Your task to perform on an android device: turn on notifications settings in the gmail app Image 0: 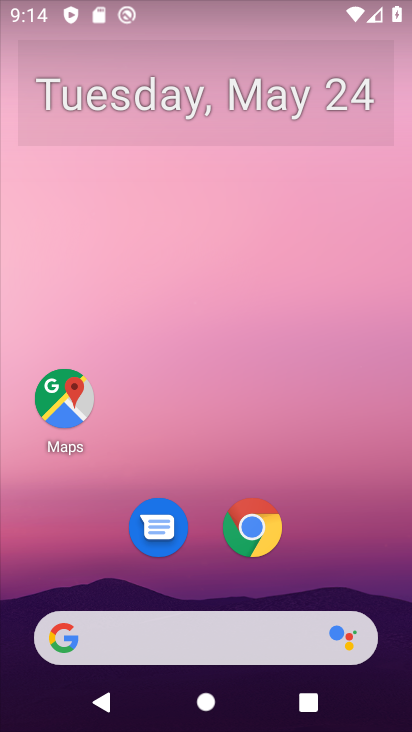
Step 0: drag from (386, 699) to (382, 202)
Your task to perform on an android device: turn on notifications settings in the gmail app Image 1: 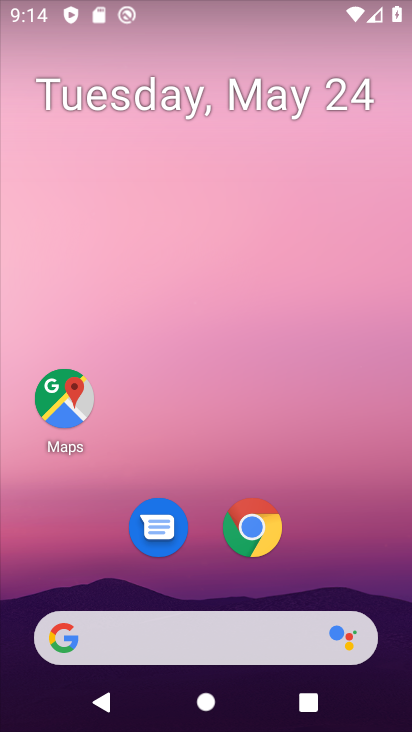
Step 1: drag from (402, 667) to (343, 184)
Your task to perform on an android device: turn on notifications settings in the gmail app Image 2: 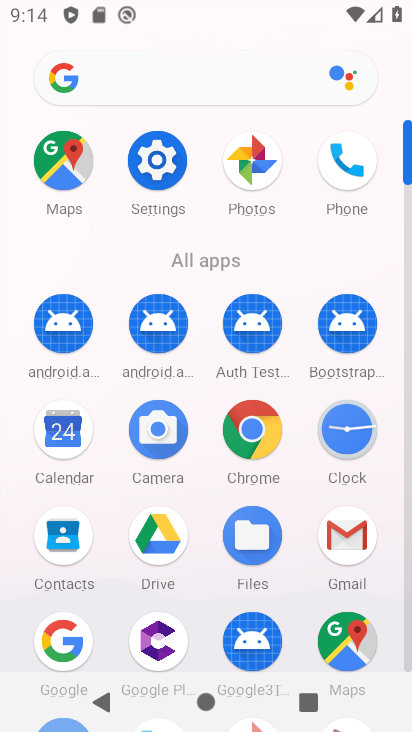
Step 2: click (341, 534)
Your task to perform on an android device: turn on notifications settings in the gmail app Image 3: 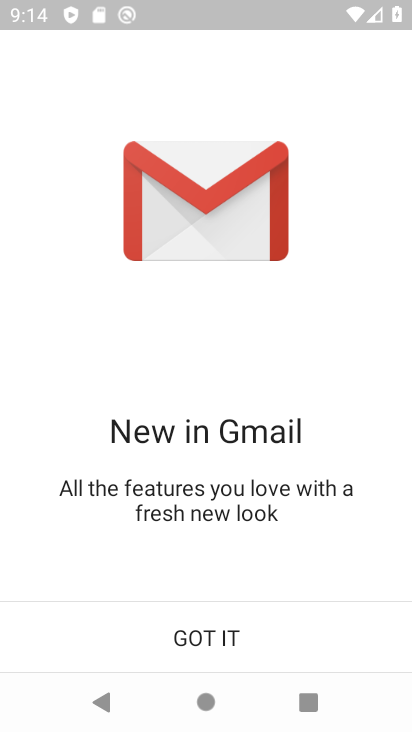
Step 3: click (224, 625)
Your task to perform on an android device: turn on notifications settings in the gmail app Image 4: 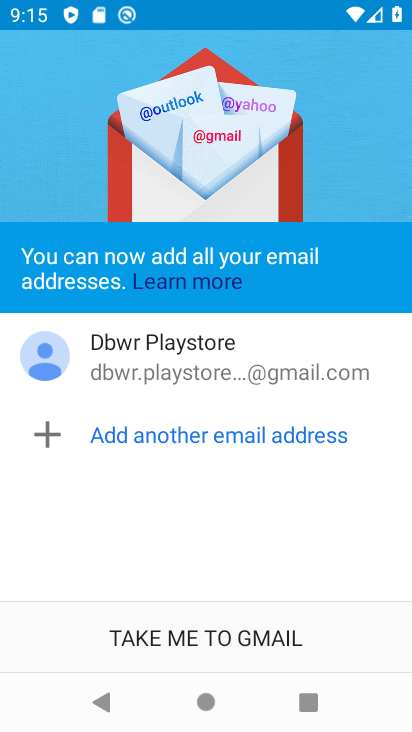
Step 4: click (279, 635)
Your task to perform on an android device: turn on notifications settings in the gmail app Image 5: 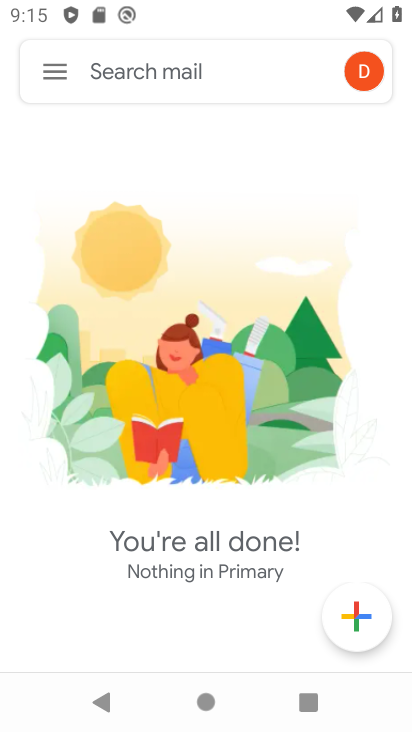
Step 5: click (60, 71)
Your task to perform on an android device: turn on notifications settings in the gmail app Image 6: 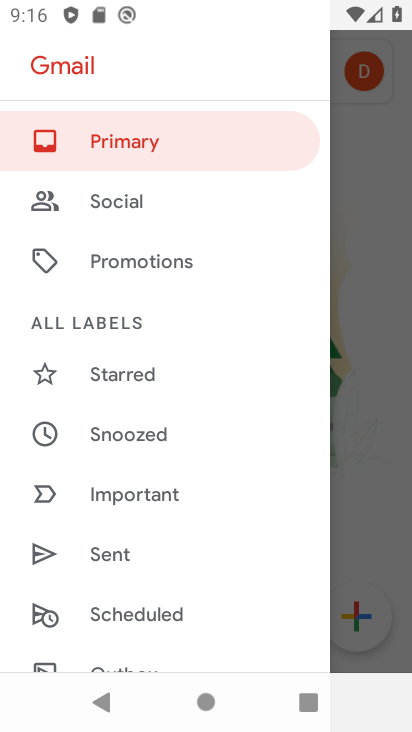
Step 6: drag from (250, 646) to (246, 245)
Your task to perform on an android device: turn on notifications settings in the gmail app Image 7: 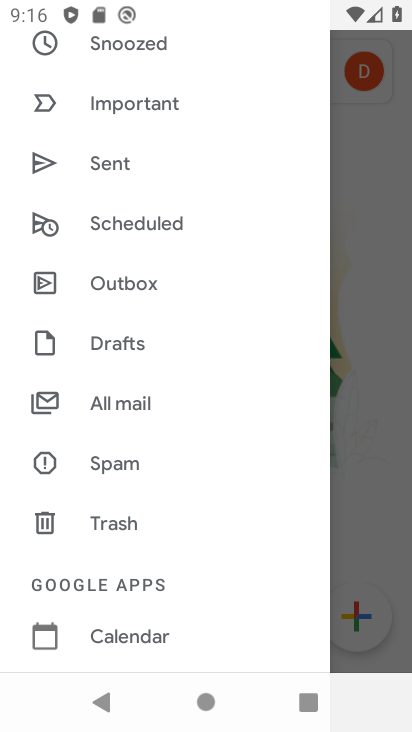
Step 7: drag from (258, 615) to (242, 216)
Your task to perform on an android device: turn on notifications settings in the gmail app Image 8: 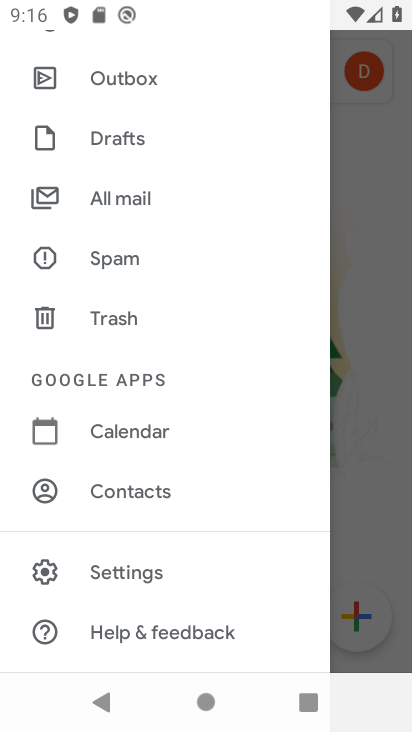
Step 8: click (113, 568)
Your task to perform on an android device: turn on notifications settings in the gmail app Image 9: 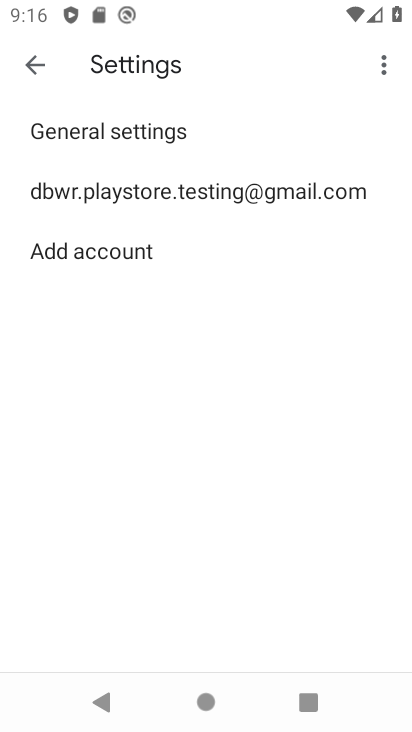
Step 9: click (99, 130)
Your task to perform on an android device: turn on notifications settings in the gmail app Image 10: 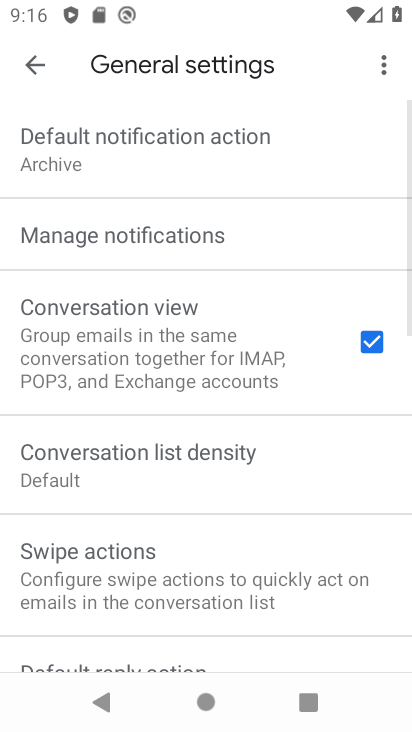
Step 10: click (112, 234)
Your task to perform on an android device: turn on notifications settings in the gmail app Image 11: 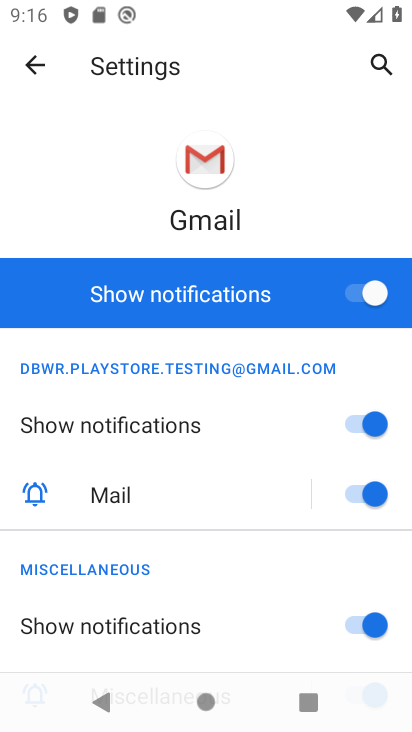
Step 11: task complete